Your task to perform on an android device: Go to display settings Image 0: 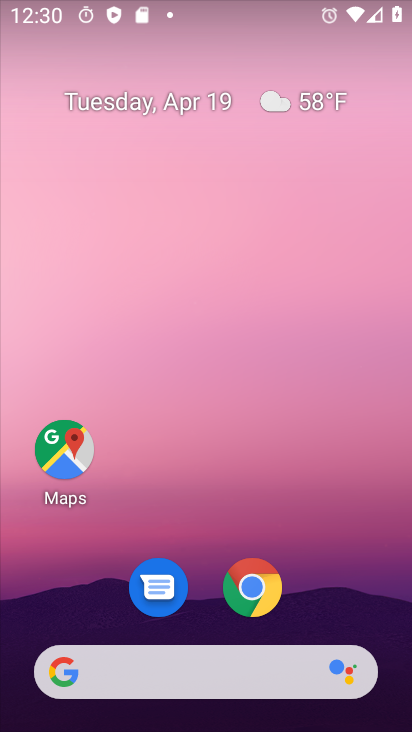
Step 0: drag from (374, 581) to (353, 96)
Your task to perform on an android device: Go to display settings Image 1: 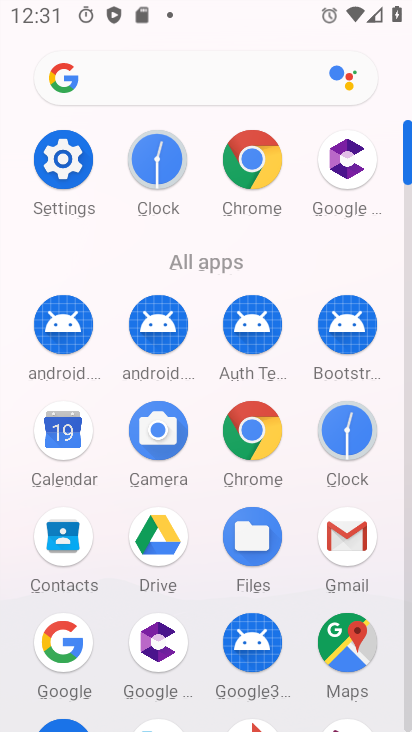
Step 1: click (59, 163)
Your task to perform on an android device: Go to display settings Image 2: 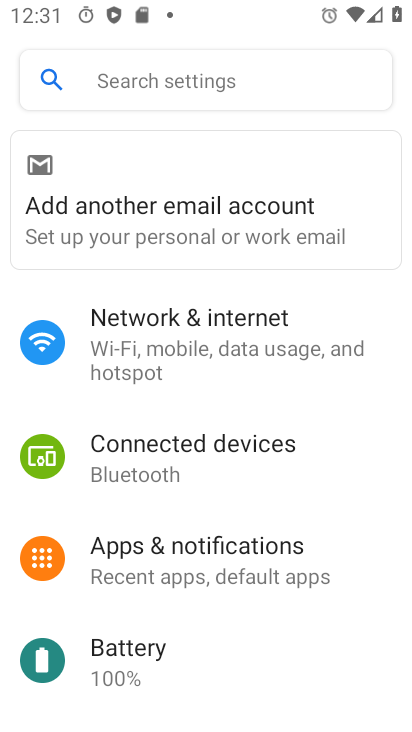
Step 2: drag from (233, 633) to (262, 345)
Your task to perform on an android device: Go to display settings Image 3: 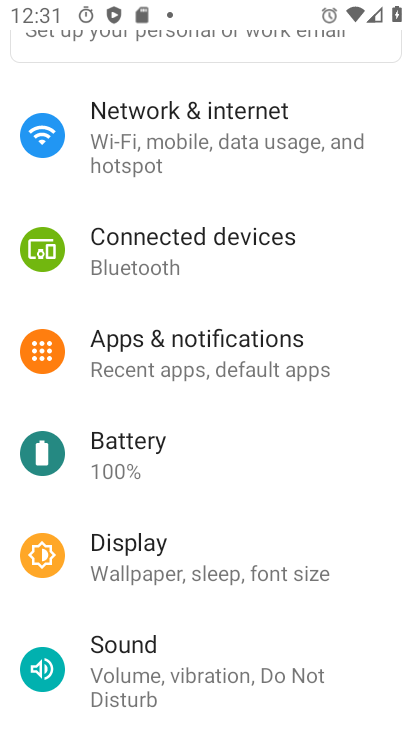
Step 3: click (160, 558)
Your task to perform on an android device: Go to display settings Image 4: 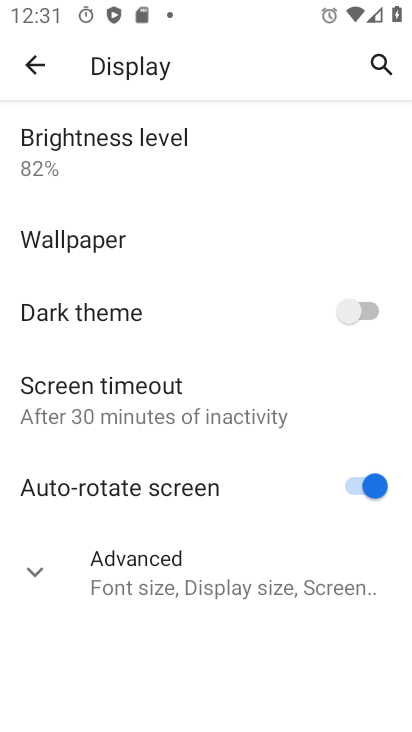
Step 4: task complete